Your task to perform on an android device: find photos in the google photos app Image 0: 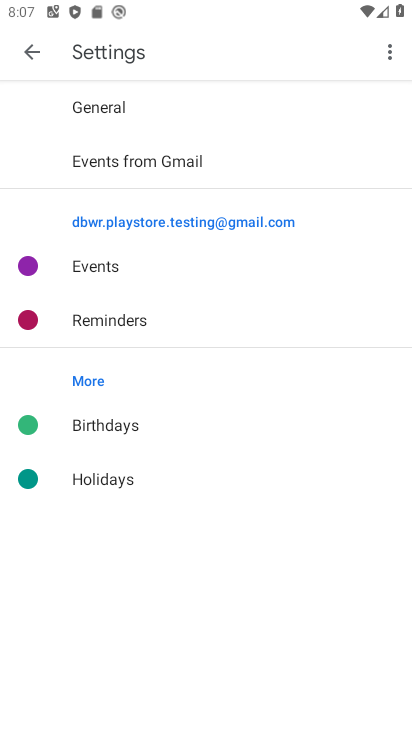
Step 0: press back button
Your task to perform on an android device: find photos in the google photos app Image 1: 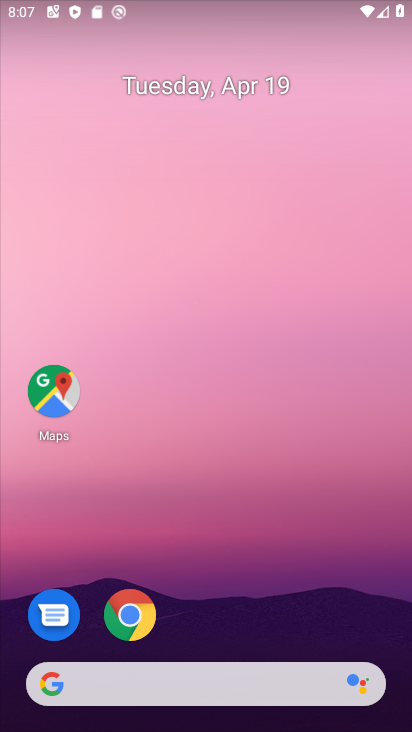
Step 1: drag from (350, 539) to (297, 18)
Your task to perform on an android device: find photos in the google photos app Image 2: 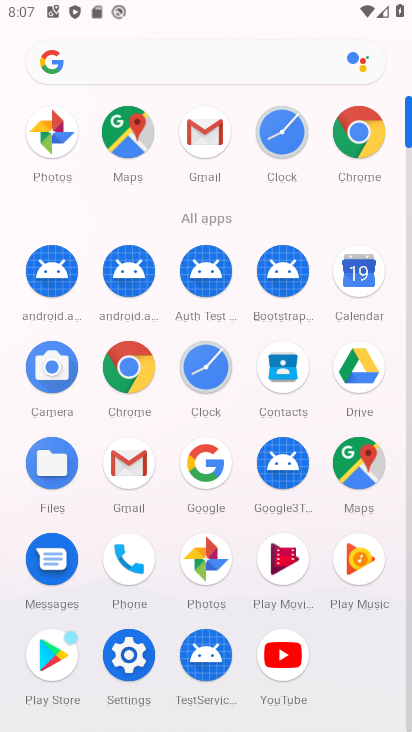
Step 2: click (50, 132)
Your task to perform on an android device: find photos in the google photos app Image 3: 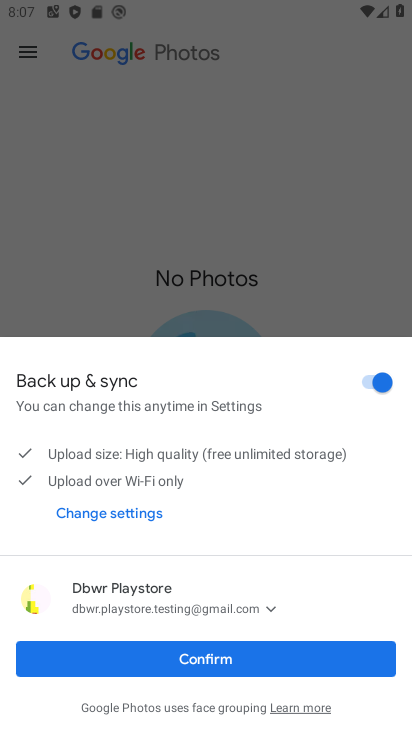
Step 3: click (227, 645)
Your task to perform on an android device: find photos in the google photos app Image 4: 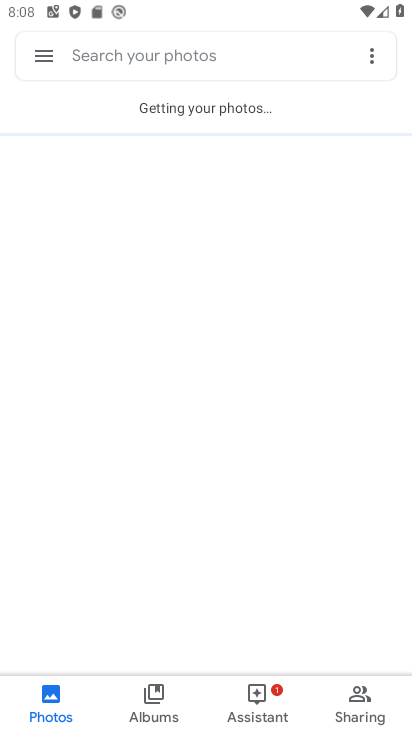
Step 4: task complete